Your task to perform on an android device: change the clock style Image 0: 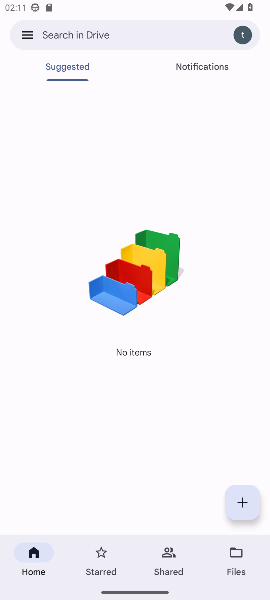
Step 0: press home button
Your task to perform on an android device: change the clock style Image 1: 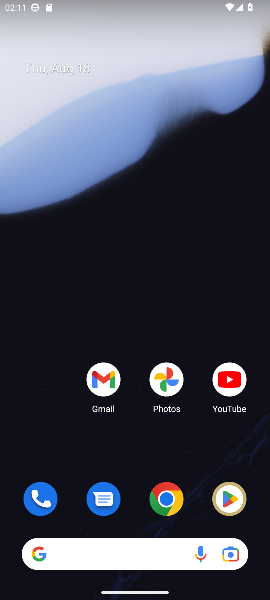
Step 1: drag from (140, 478) to (104, 102)
Your task to perform on an android device: change the clock style Image 2: 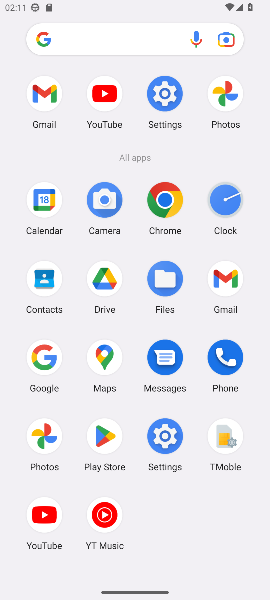
Step 2: click (231, 206)
Your task to perform on an android device: change the clock style Image 3: 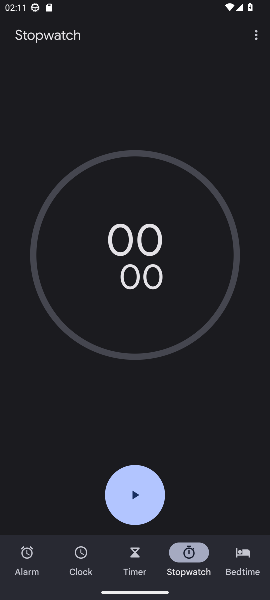
Step 3: click (251, 35)
Your task to perform on an android device: change the clock style Image 4: 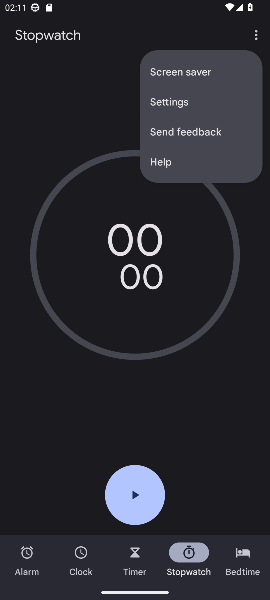
Step 4: click (176, 100)
Your task to perform on an android device: change the clock style Image 5: 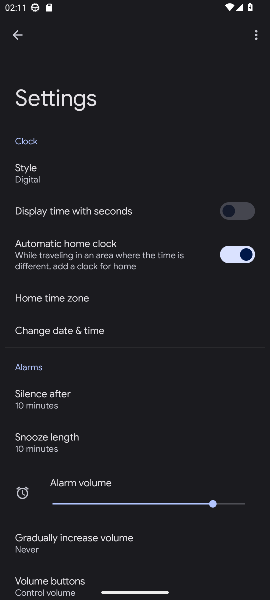
Step 5: click (32, 172)
Your task to perform on an android device: change the clock style Image 6: 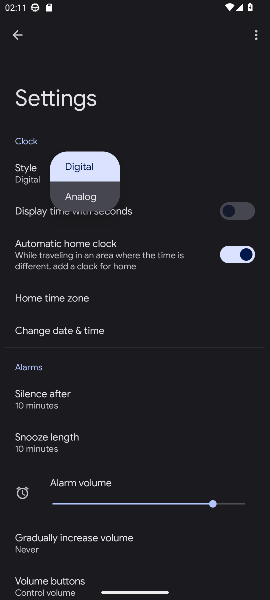
Step 6: click (73, 199)
Your task to perform on an android device: change the clock style Image 7: 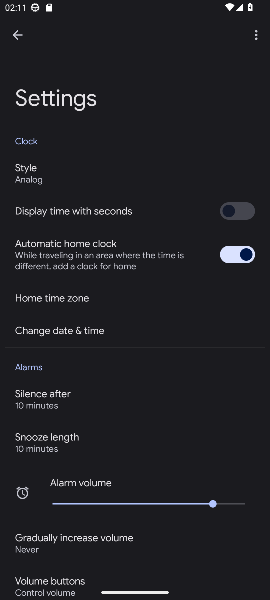
Step 7: task complete